Your task to perform on an android device: Go to Amazon Image 0: 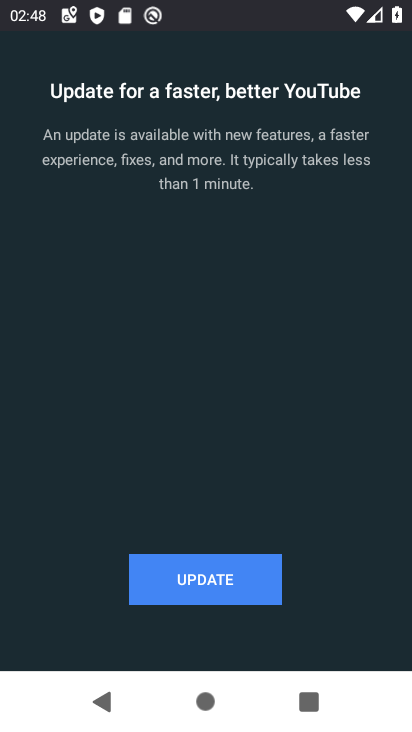
Step 0: press home button
Your task to perform on an android device: Go to Amazon Image 1: 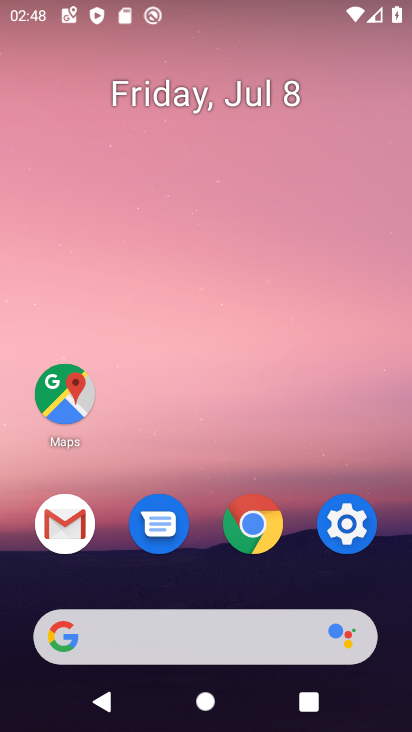
Step 1: click (254, 526)
Your task to perform on an android device: Go to Amazon Image 2: 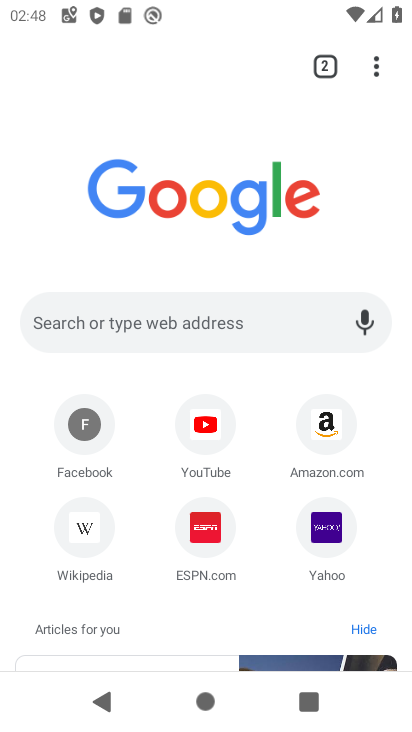
Step 2: click (313, 409)
Your task to perform on an android device: Go to Amazon Image 3: 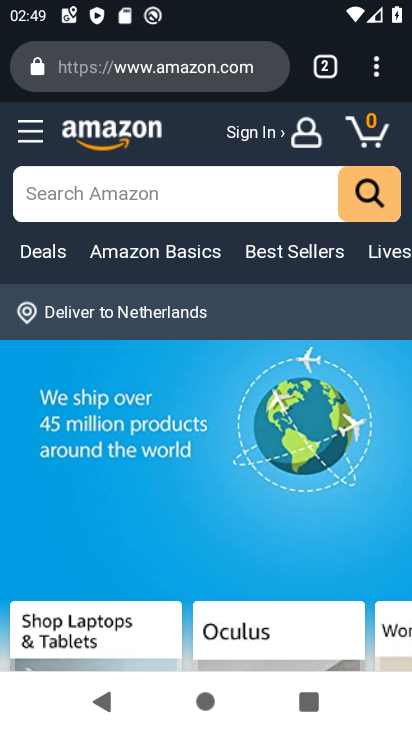
Step 3: task complete